Your task to perform on an android device: What's the weather going to be this weekend? Image 0: 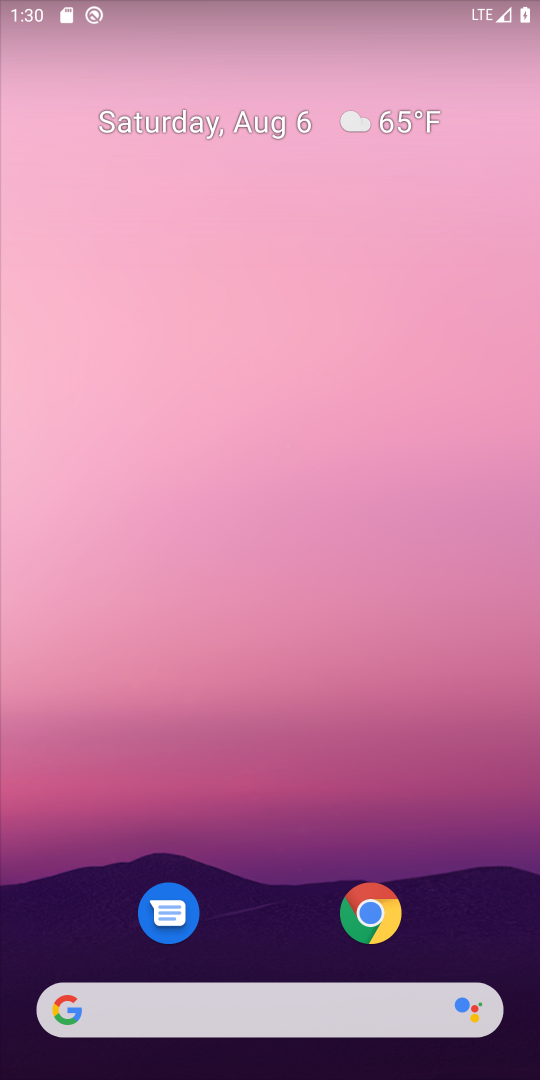
Step 0: press home button
Your task to perform on an android device: What's the weather going to be this weekend? Image 1: 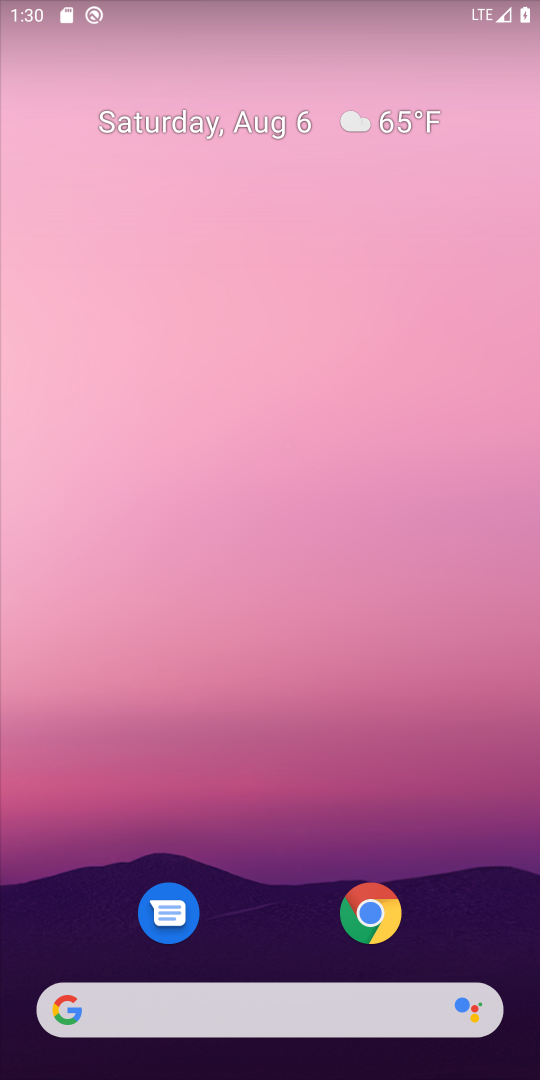
Step 1: click (279, 999)
Your task to perform on an android device: What's the weather going to be this weekend? Image 2: 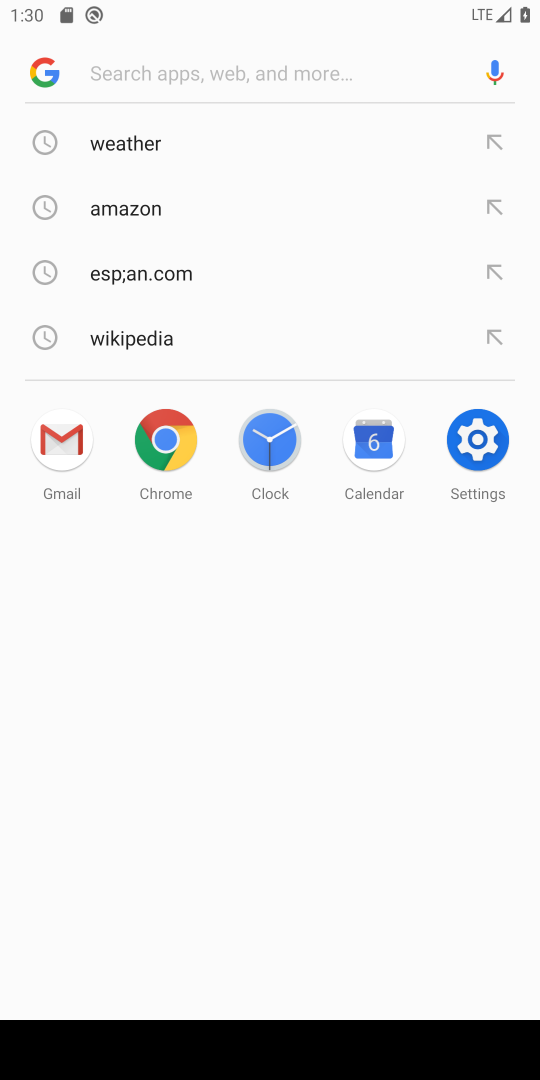
Step 2: click (143, 139)
Your task to perform on an android device: What's the weather going to be this weekend? Image 3: 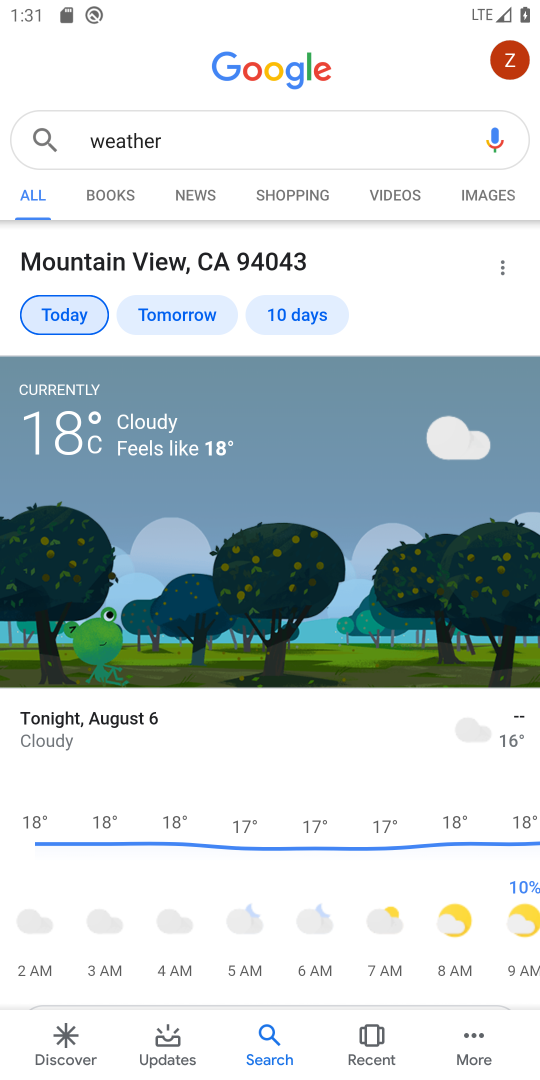
Step 3: click (303, 309)
Your task to perform on an android device: What's the weather going to be this weekend? Image 4: 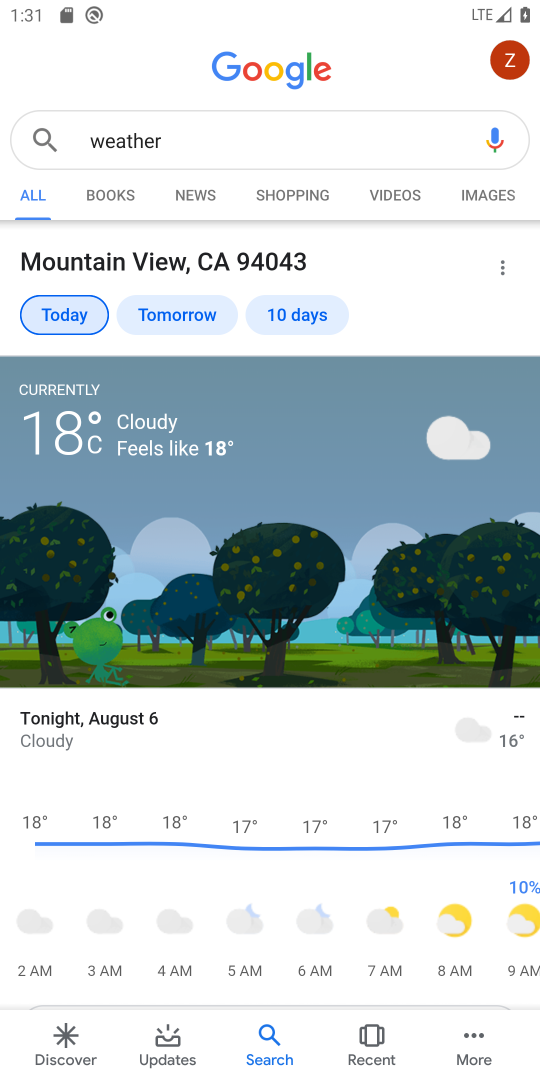
Step 4: click (317, 311)
Your task to perform on an android device: What's the weather going to be this weekend? Image 5: 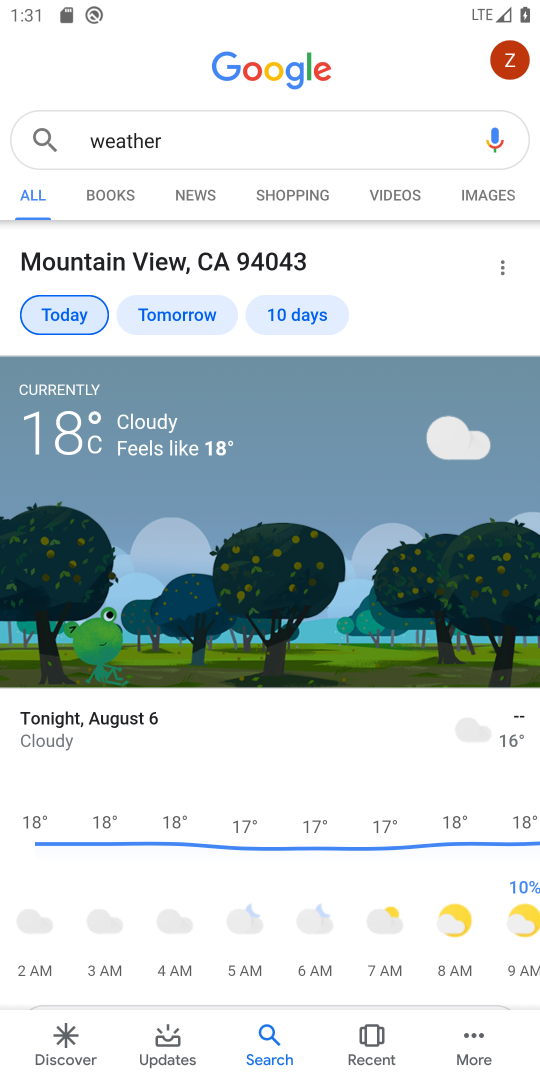
Step 5: task complete